Your task to perform on an android device: change timer sound Image 0: 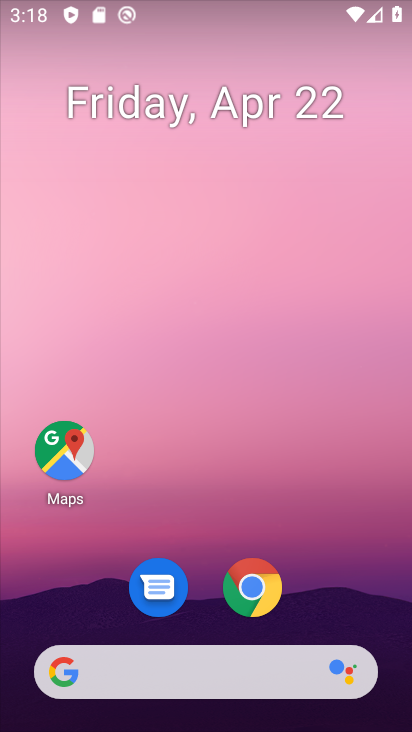
Step 0: drag from (332, 565) to (285, 1)
Your task to perform on an android device: change timer sound Image 1: 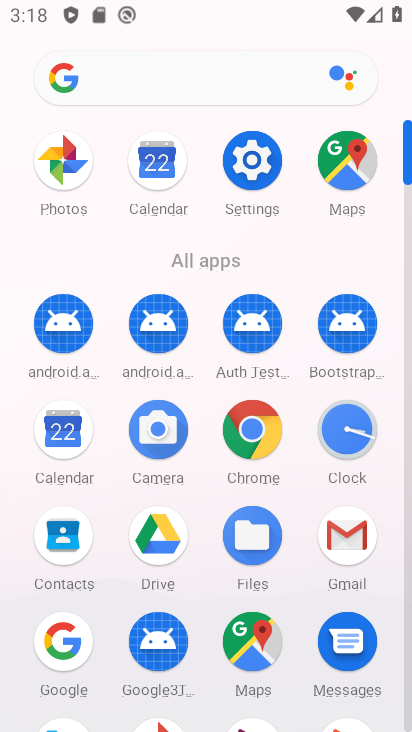
Step 1: click (251, 146)
Your task to perform on an android device: change timer sound Image 2: 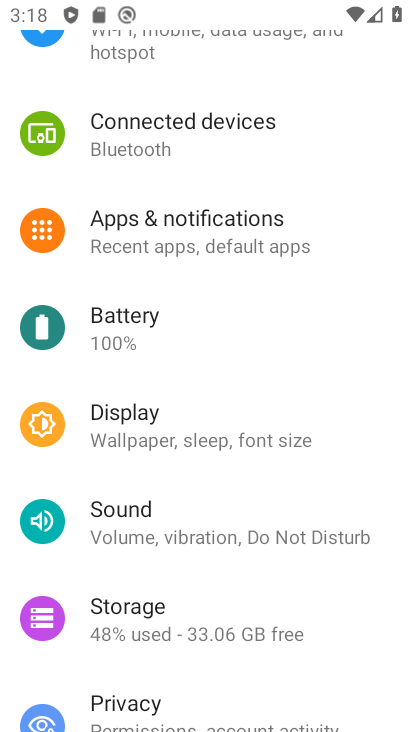
Step 2: press home button
Your task to perform on an android device: change timer sound Image 3: 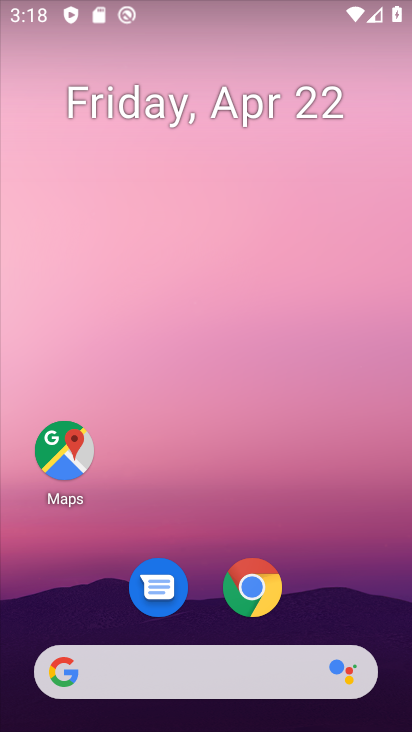
Step 3: drag from (329, 559) to (262, 6)
Your task to perform on an android device: change timer sound Image 4: 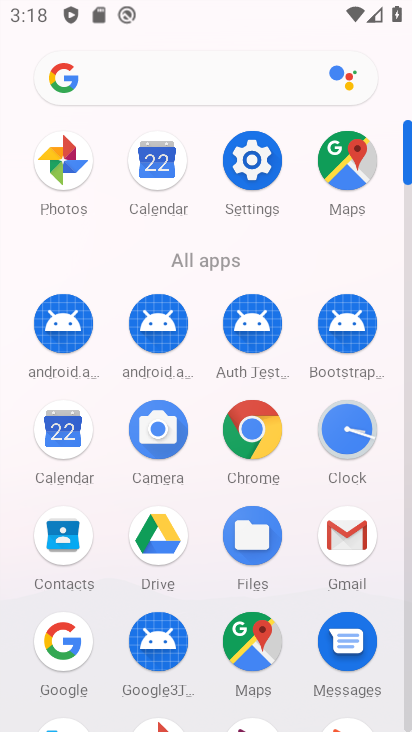
Step 4: click (348, 425)
Your task to perform on an android device: change timer sound Image 5: 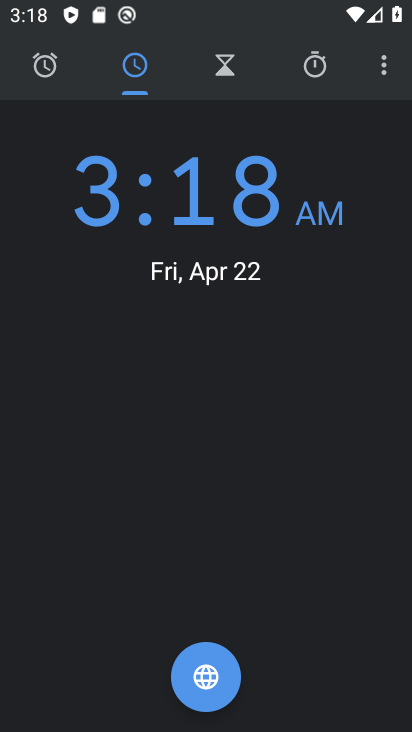
Step 5: click (382, 74)
Your task to perform on an android device: change timer sound Image 6: 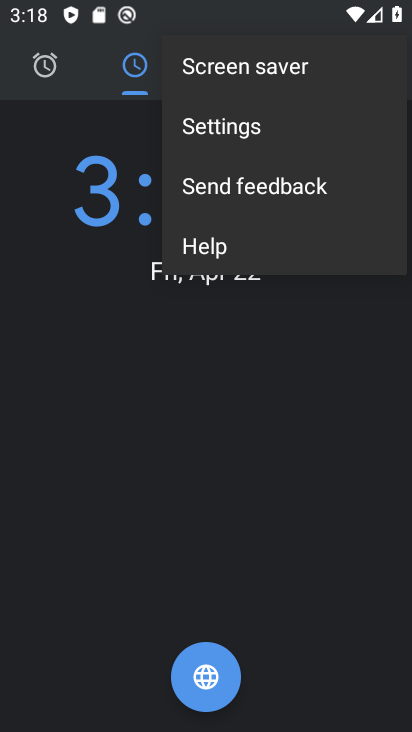
Step 6: click (225, 139)
Your task to perform on an android device: change timer sound Image 7: 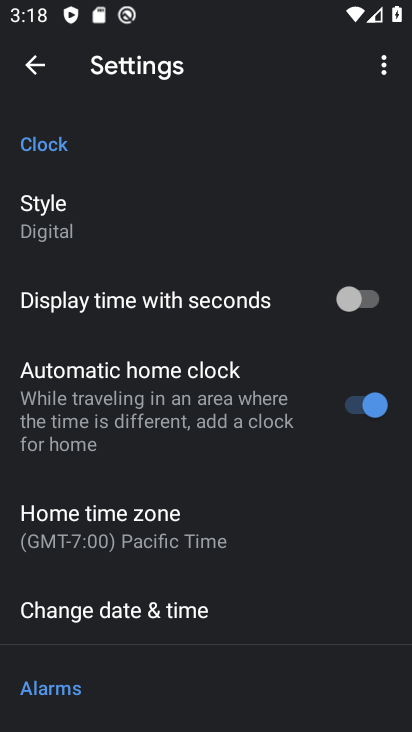
Step 7: drag from (173, 588) to (177, 295)
Your task to perform on an android device: change timer sound Image 8: 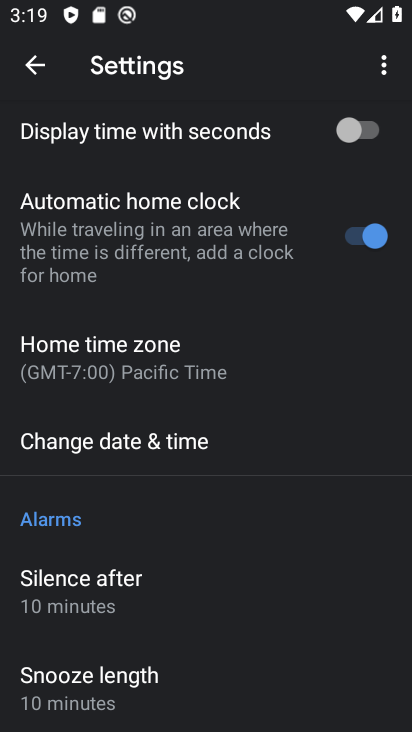
Step 8: drag from (203, 612) to (229, 71)
Your task to perform on an android device: change timer sound Image 9: 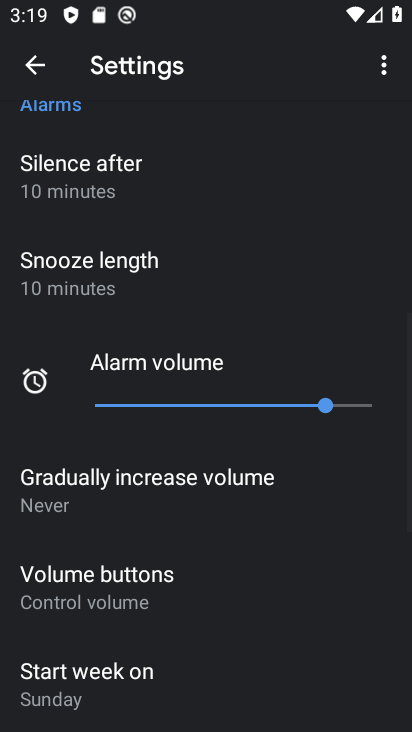
Step 9: drag from (223, 635) to (169, 66)
Your task to perform on an android device: change timer sound Image 10: 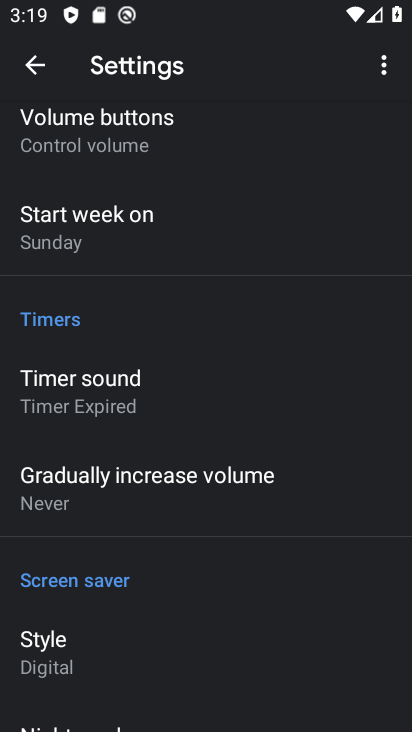
Step 10: click (92, 391)
Your task to perform on an android device: change timer sound Image 11: 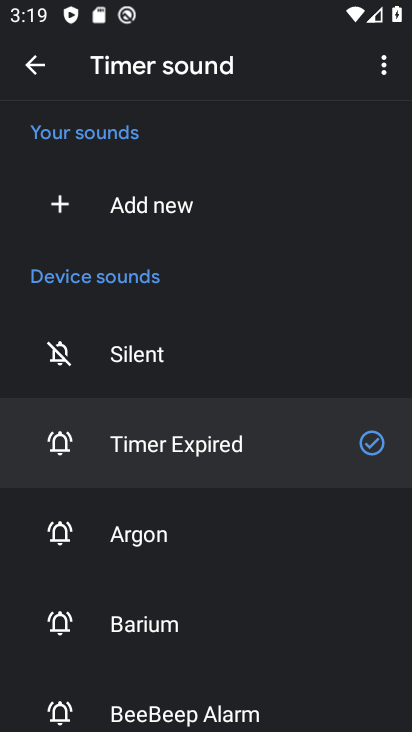
Step 11: click (167, 528)
Your task to perform on an android device: change timer sound Image 12: 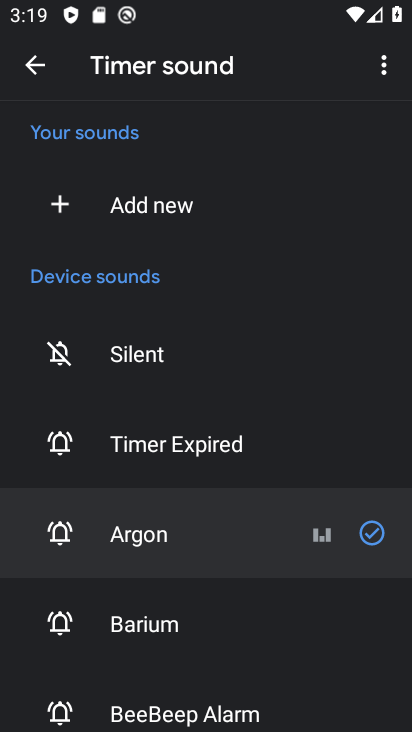
Step 12: task complete